Your task to perform on an android device: move a message to another label in the gmail app Image 0: 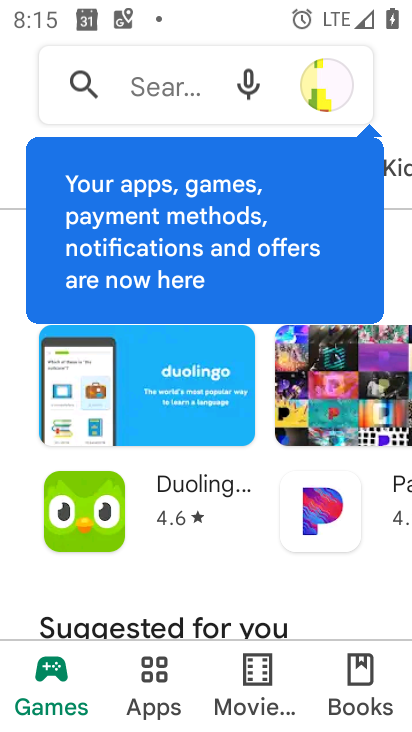
Step 0: press home button
Your task to perform on an android device: move a message to another label in the gmail app Image 1: 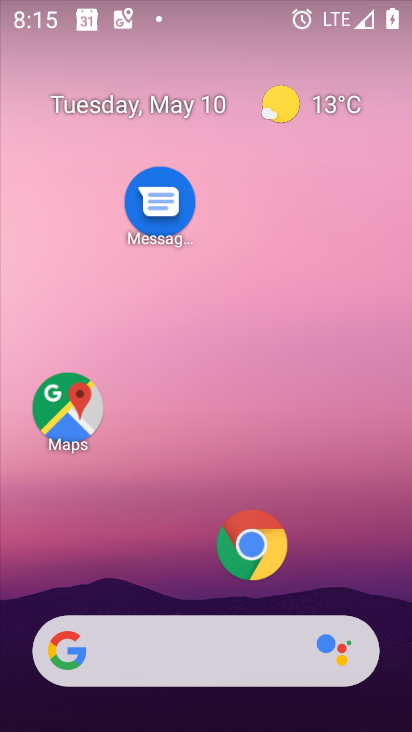
Step 1: drag from (9, 311) to (409, 305)
Your task to perform on an android device: move a message to another label in the gmail app Image 2: 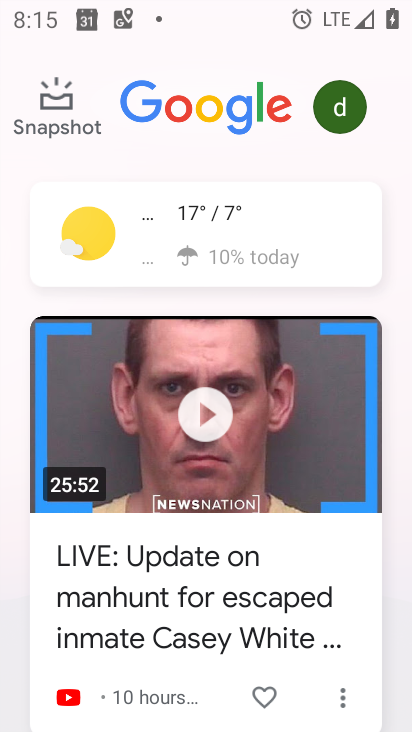
Step 2: press home button
Your task to perform on an android device: move a message to another label in the gmail app Image 3: 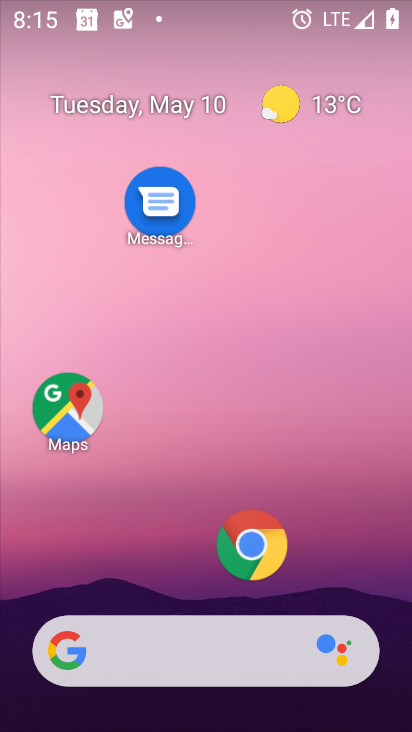
Step 3: drag from (200, 598) to (262, 5)
Your task to perform on an android device: move a message to another label in the gmail app Image 4: 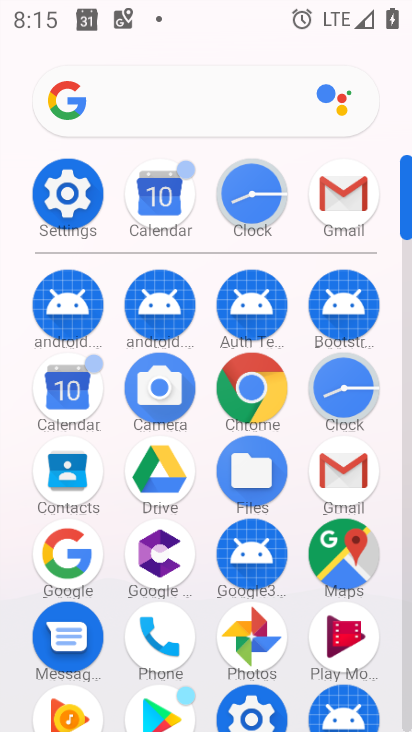
Step 4: click (337, 208)
Your task to perform on an android device: move a message to another label in the gmail app Image 5: 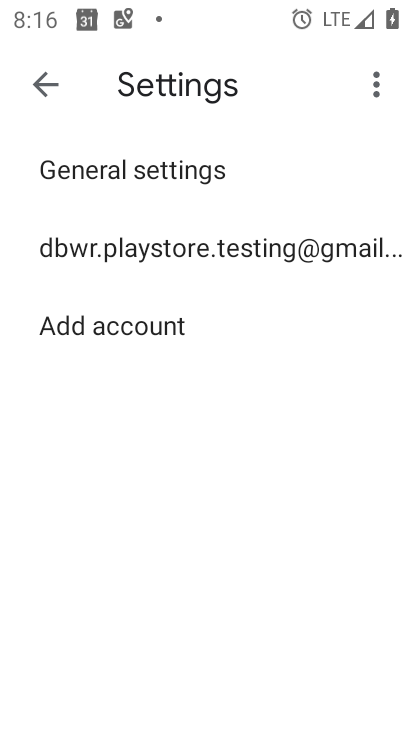
Step 5: click (38, 85)
Your task to perform on an android device: move a message to another label in the gmail app Image 6: 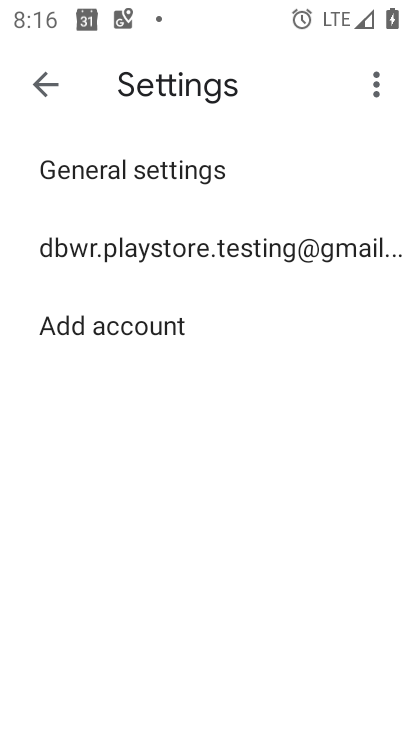
Step 6: click (45, 82)
Your task to perform on an android device: move a message to another label in the gmail app Image 7: 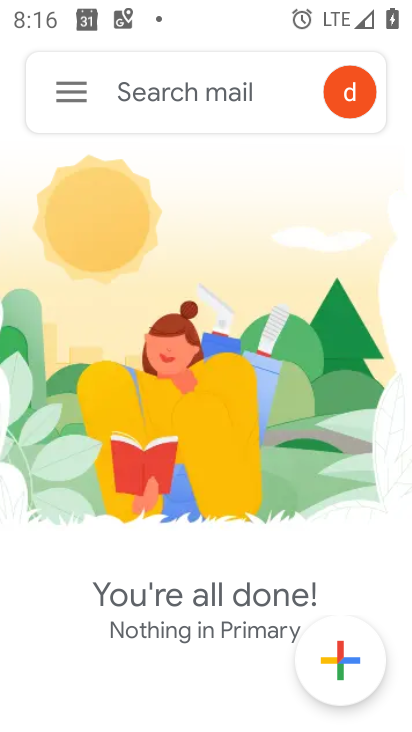
Step 7: task complete